Your task to perform on an android device: set an alarm Image 0: 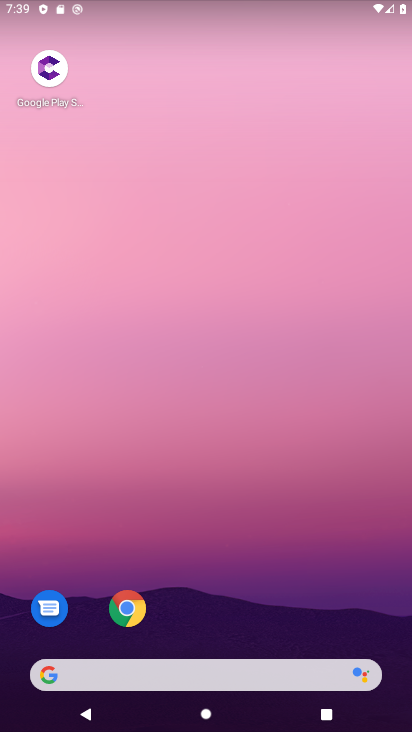
Step 0: click (237, 2)
Your task to perform on an android device: set an alarm Image 1: 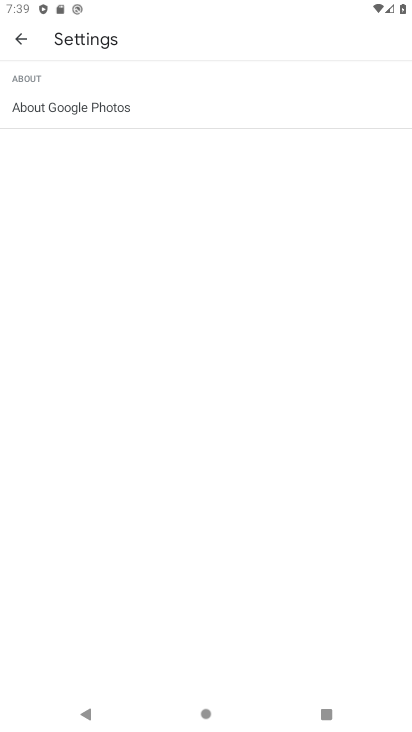
Step 1: click (21, 34)
Your task to perform on an android device: set an alarm Image 2: 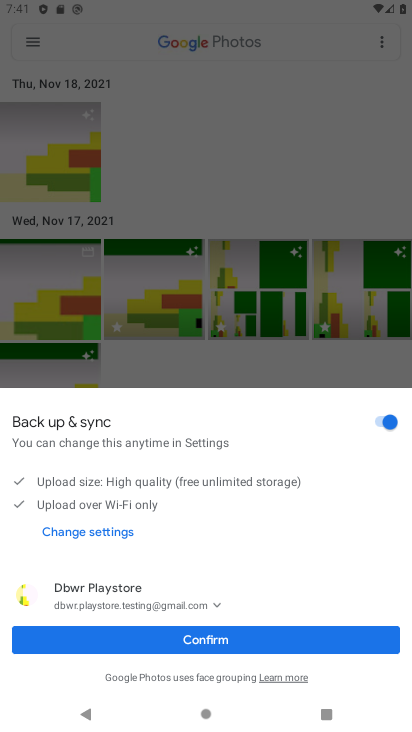
Step 2: press home button
Your task to perform on an android device: set an alarm Image 3: 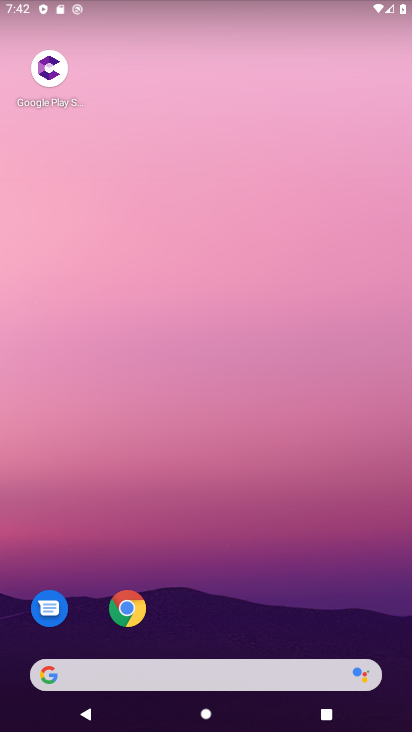
Step 3: drag from (163, 707) to (148, 108)
Your task to perform on an android device: set an alarm Image 4: 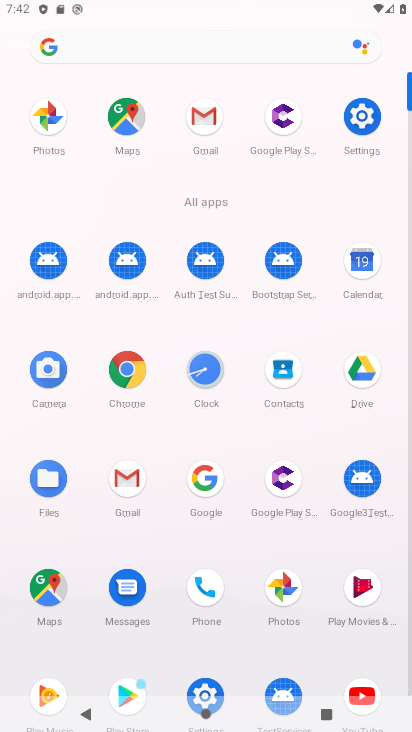
Step 4: click (211, 377)
Your task to perform on an android device: set an alarm Image 5: 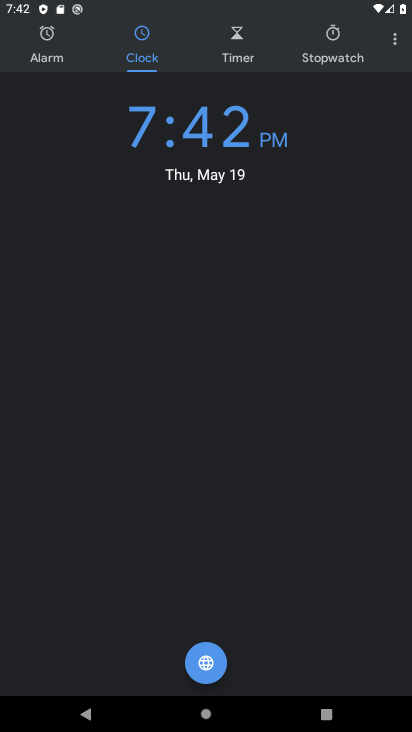
Step 5: click (58, 47)
Your task to perform on an android device: set an alarm Image 6: 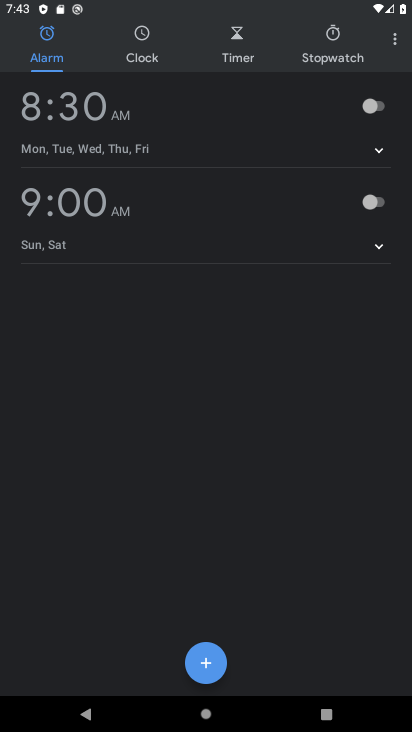
Step 6: task complete